Your task to perform on an android device: Open calendar and show me the second week of next month Image 0: 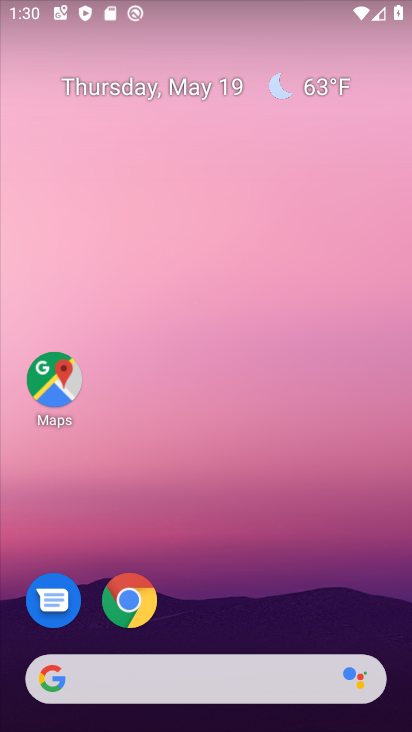
Step 0: drag from (264, 622) to (261, 34)
Your task to perform on an android device: Open calendar and show me the second week of next month Image 1: 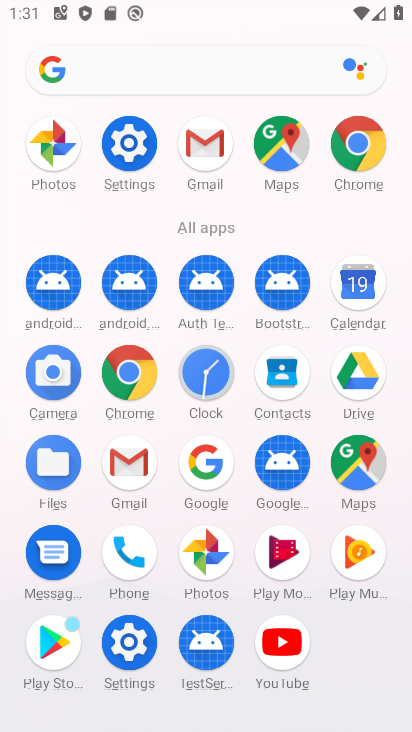
Step 1: click (373, 277)
Your task to perform on an android device: Open calendar and show me the second week of next month Image 2: 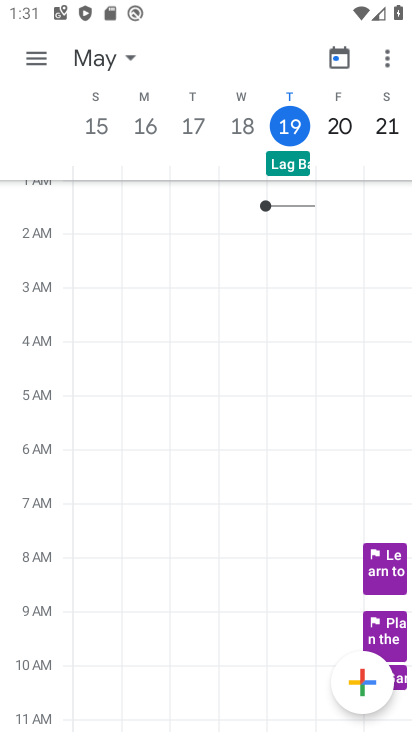
Step 2: click (33, 56)
Your task to perform on an android device: Open calendar and show me the second week of next month Image 3: 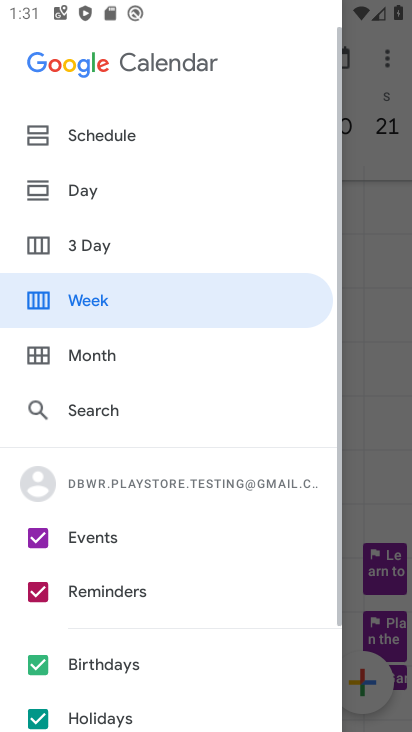
Step 3: click (377, 208)
Your task to perform on an android device: Open calendar and show me the second week of next month Image 4: 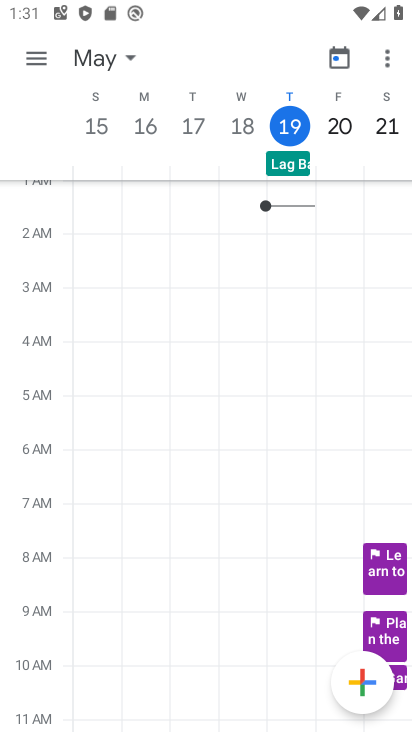
Step 4: click (120, 46)
Your task to perform on an android device: Open calendar and show me the second week of next month Image 5: 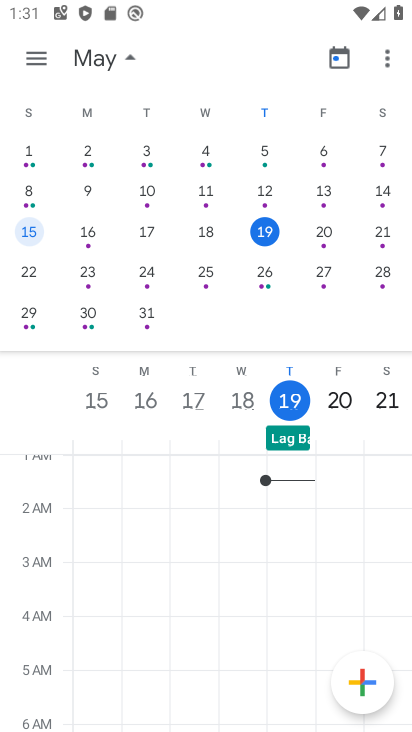
Step 5: drag from (368, 249) to (48, 211)
Your task to perform on an android device: Open calendar and show me the second week of next month Image 6: 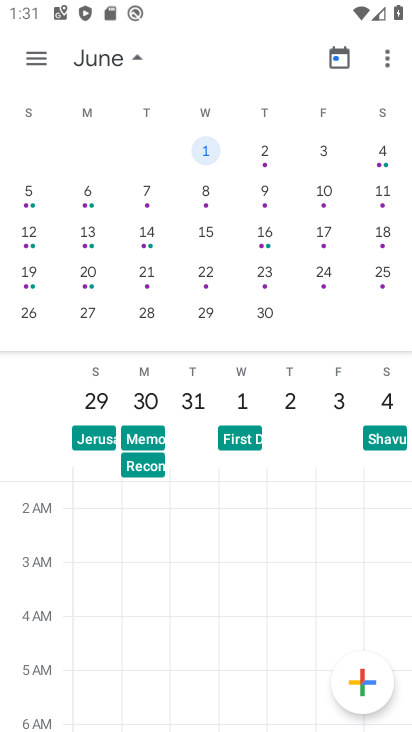
Step 6: click (82, 231)
Your task to perform on an android device: Open calendar and show me the second week of next month Image 7: 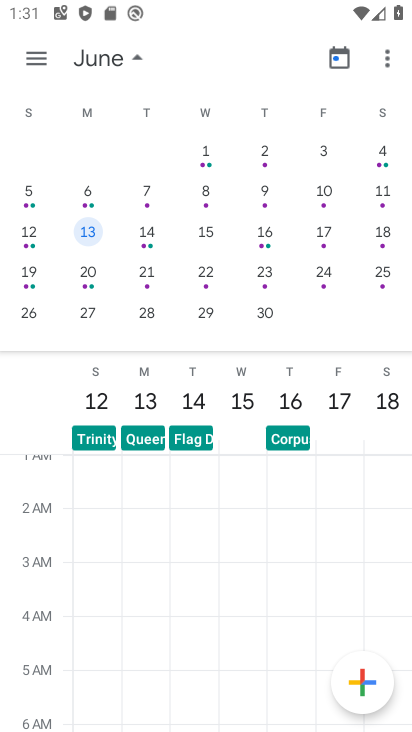
Step 7: task complete